Your task to perform on an android device: Open wifi settings Image 0: 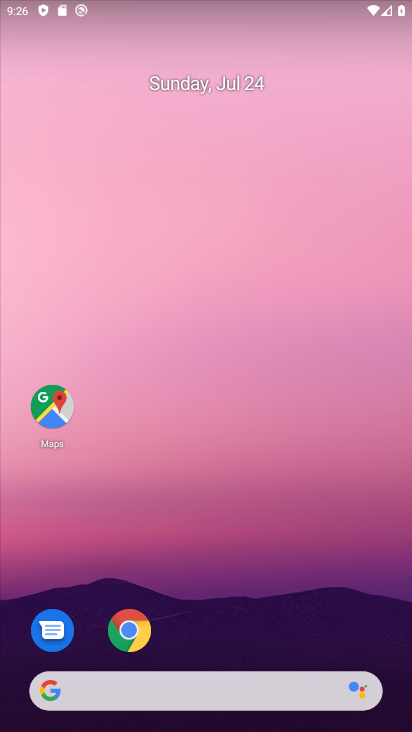
Step 0: drag from (199, 622) to (202, 67)
Your task to perform on an android device: Open wifi settings Image 1: 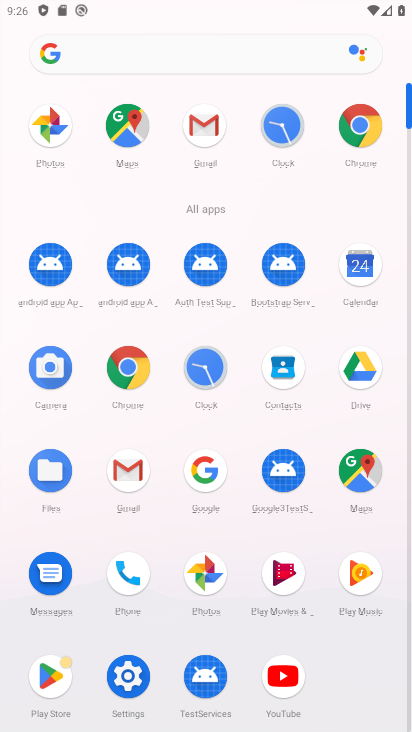
Step 1: click (132, 685)
Your task to perform on an android device: Open wifi settings Image 2: 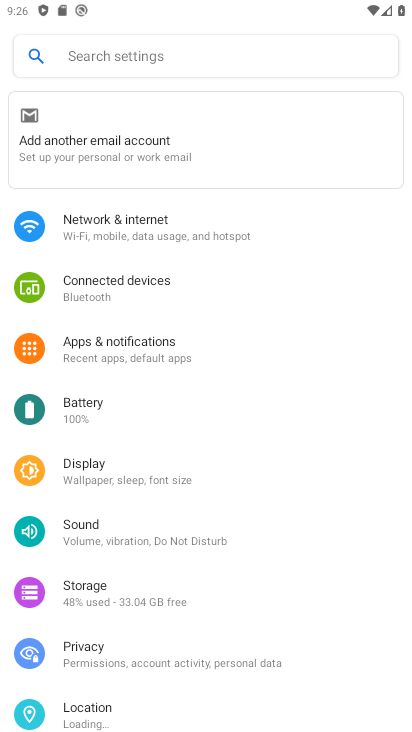
Step 2: click (135, 224)
Your task to perform on an android device: Open wifi settings Image 3: 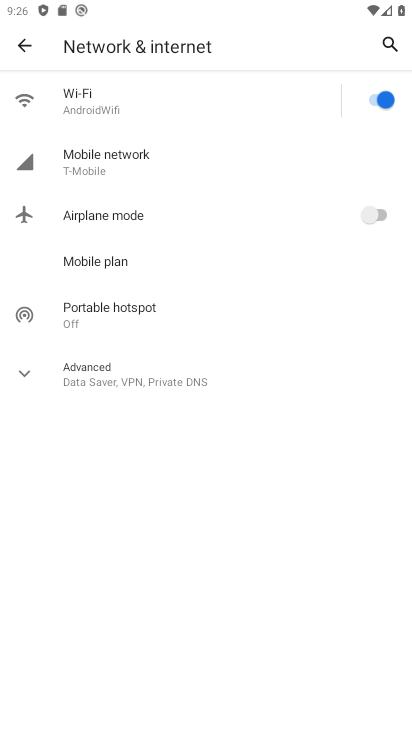
Step 3: click (117, 80)
Your task to perform on an android device: Open wifi settings Image 4: 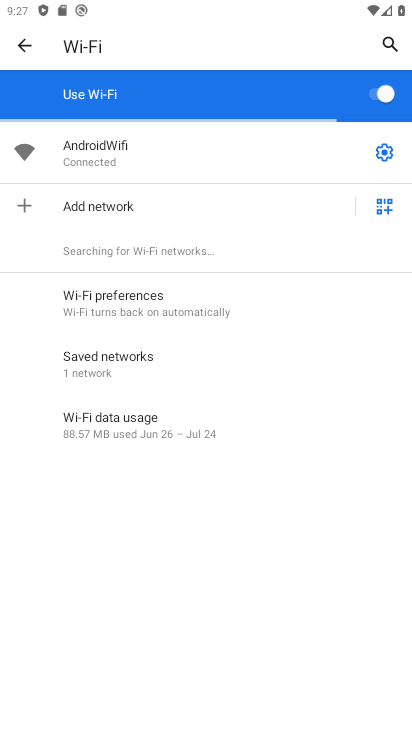
Step 4: task complete